Your task to perform on an android device: turn off smart reply in the gmail app Image 0: 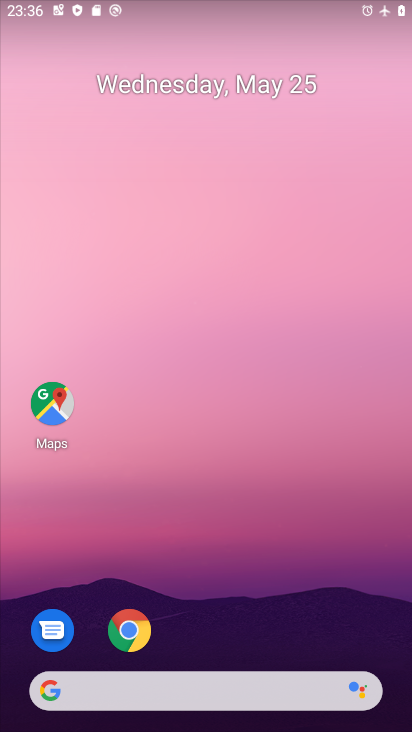
Step 0: drag from (221, 585) to (184, 114)
Your task to perform on an android device: turn off smart reply in the gmail app Image 1: 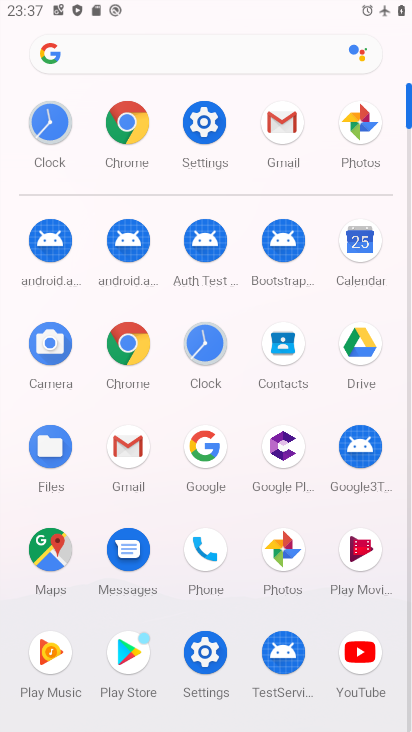
Step 1: click (202, 106)
Your task to perform on an android device: turn off smart reply in the gmail app Image 2: 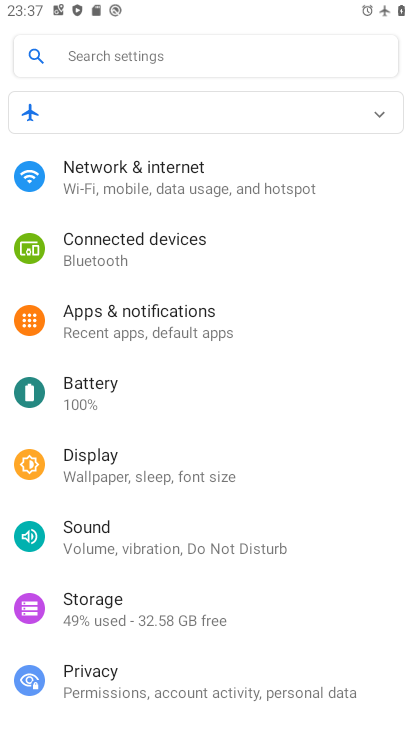
Step 2: press home button
Your task to perform on an android device: turn off smart reply in the gmail app Image 3: 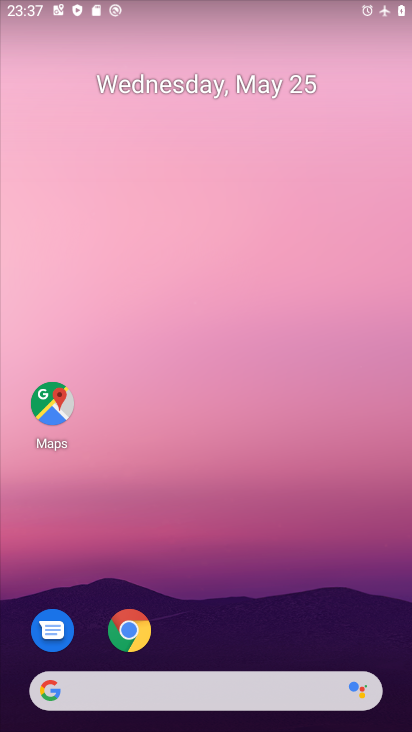
Step 3: drag from (206, 615) to (224, 173)
Your task to perform on an android device: turn off smart reply in the gmail app Image 4: 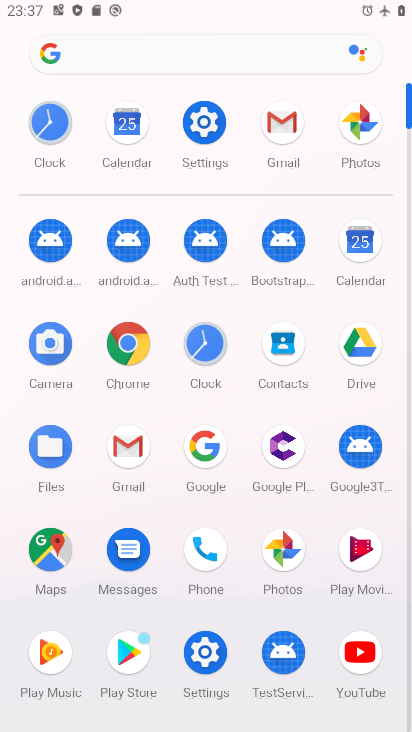
Step 4: click (276, 147)
Your task to perform on an android device: turn off smart reply in the gmail app Image 5: 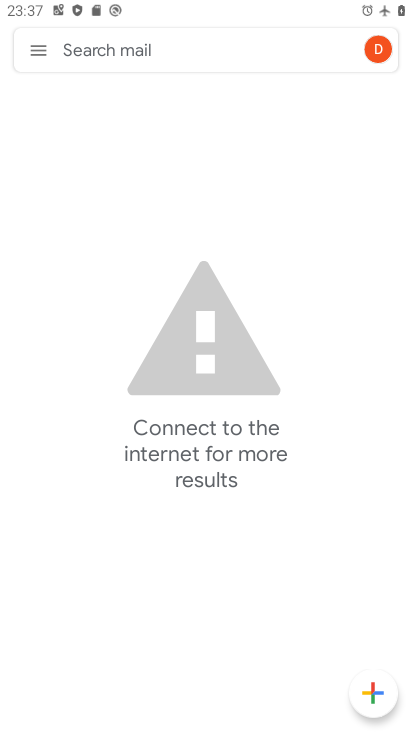
Step 5: click (25, 41)
Your task to perform on an android device: turn off smart reply in the gmail app Image 6: 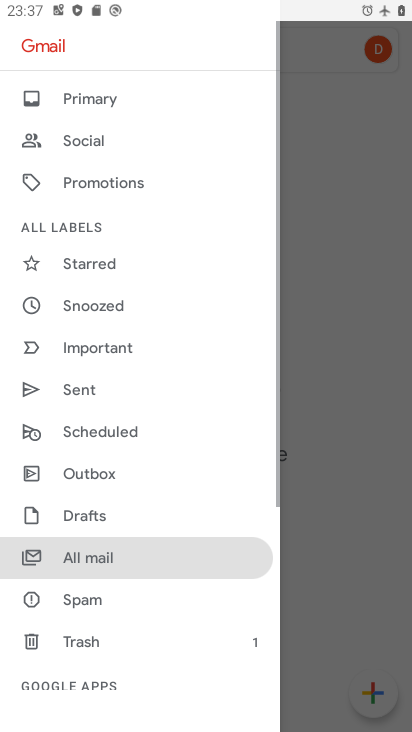
Step 6: drag from (123, 651) to (125, 273)
Your task to perform on an android device: turn off smart reply in the gmail app Image 7: 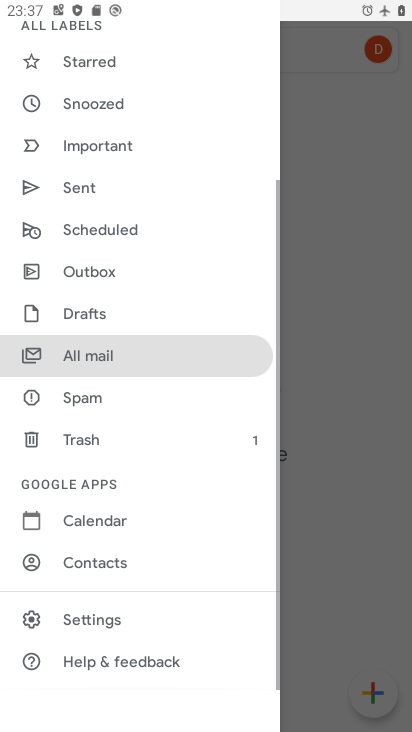
Step 7: click (115, 612)
Your task to perform on an android device: turn off smart reply in the gmail app Image 8: 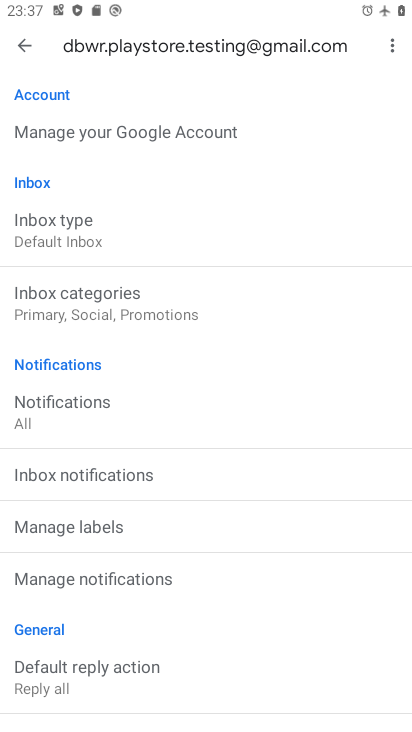
Step 8: drag from (132, 656) to (162, 294)
Your task to perform on an android device: turn off smart reply in the gmail app Image 9: 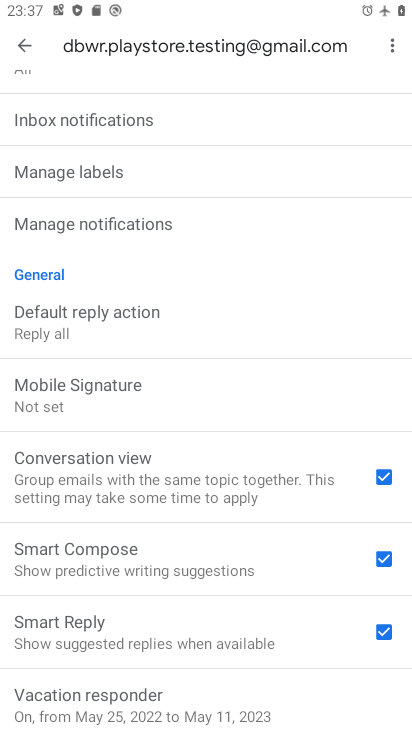
Step 9: click (374, 633)
Your task to perform on an android device: turn off smart reply in the gmail app Image 10: 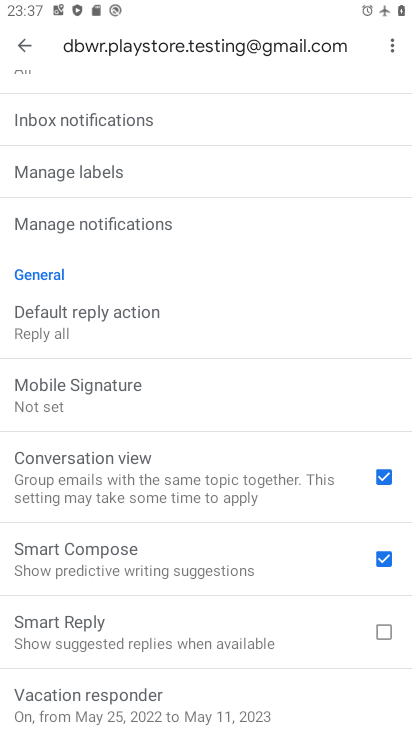
Step 10: task complete